Your task to perform on an android device: change notification settings in the gmail app Image 0: 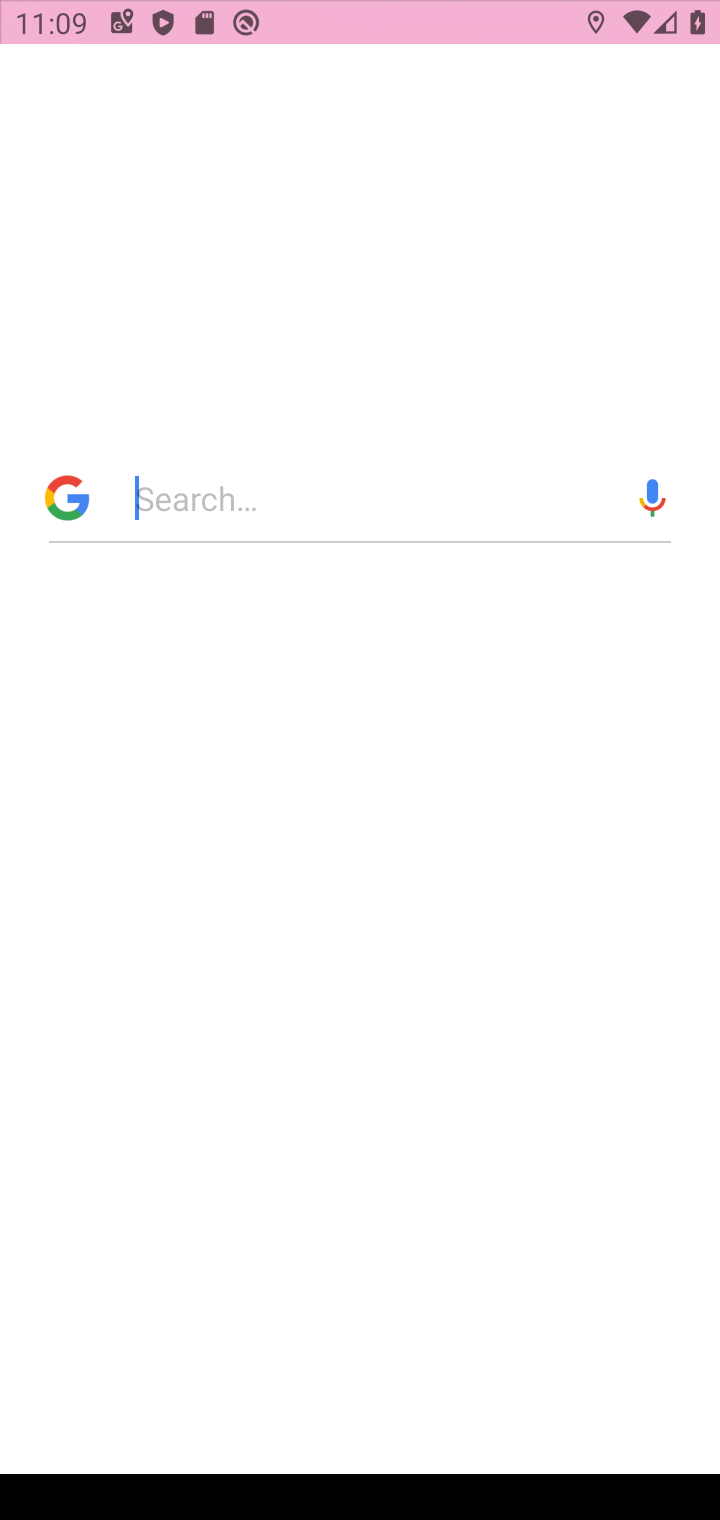
Step 0: press home button
Your task to perform on an android device: change notification settings in the gmail app Image 1: 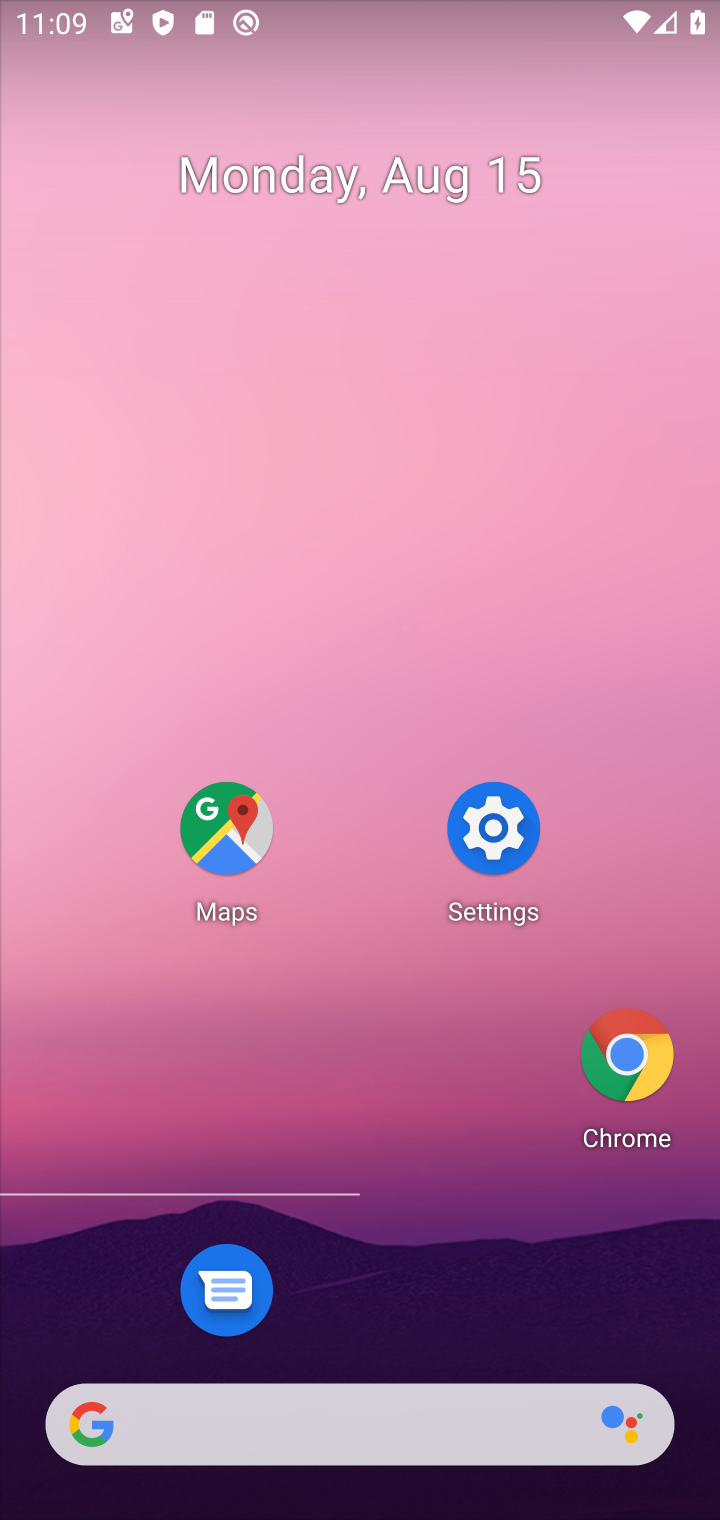
Step 1: drag from (370, 1289) to (493, 245)
Your task to perform on an android device: change notification settings in the gmail app Image 2: 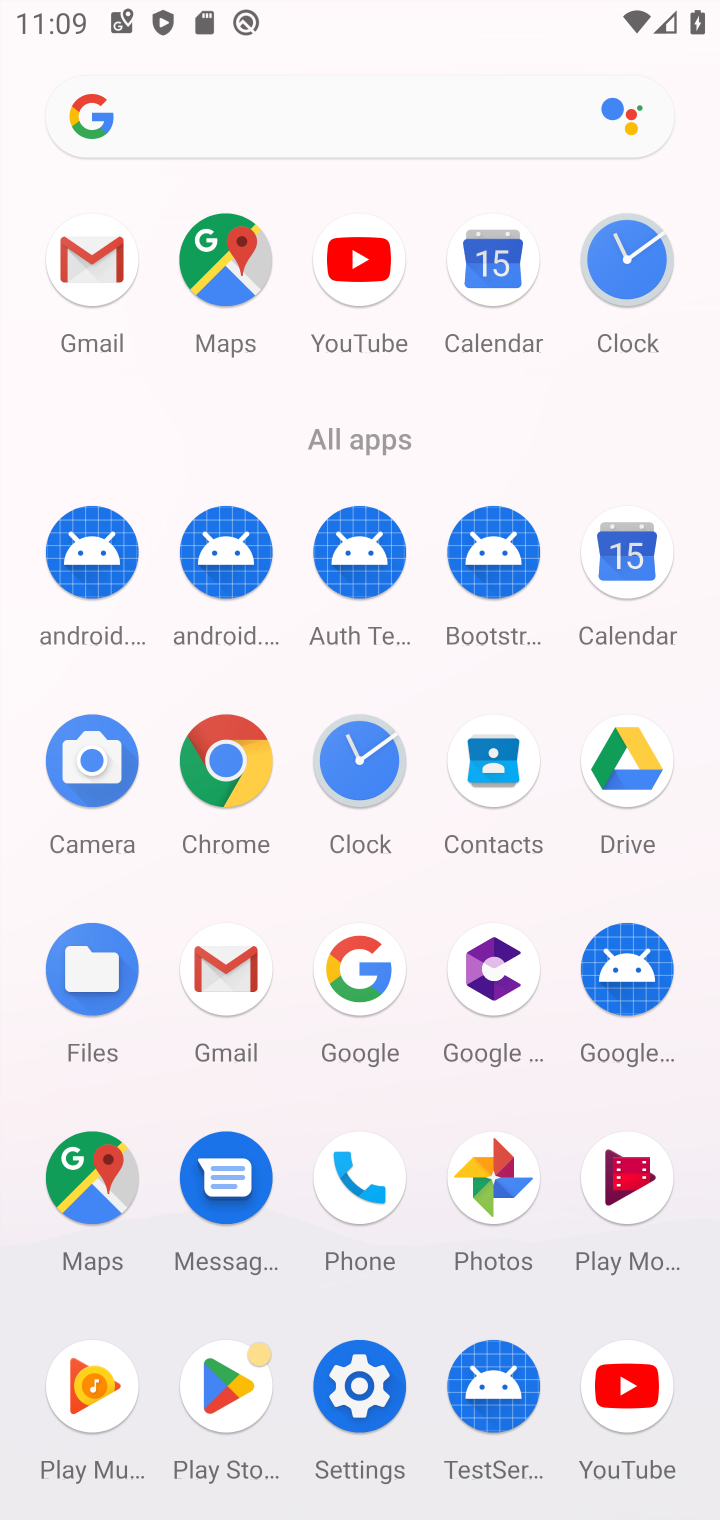
Step 2: click (94, 278)
Your task to perform on an android device: change notification settings in the gmail app Image 3: 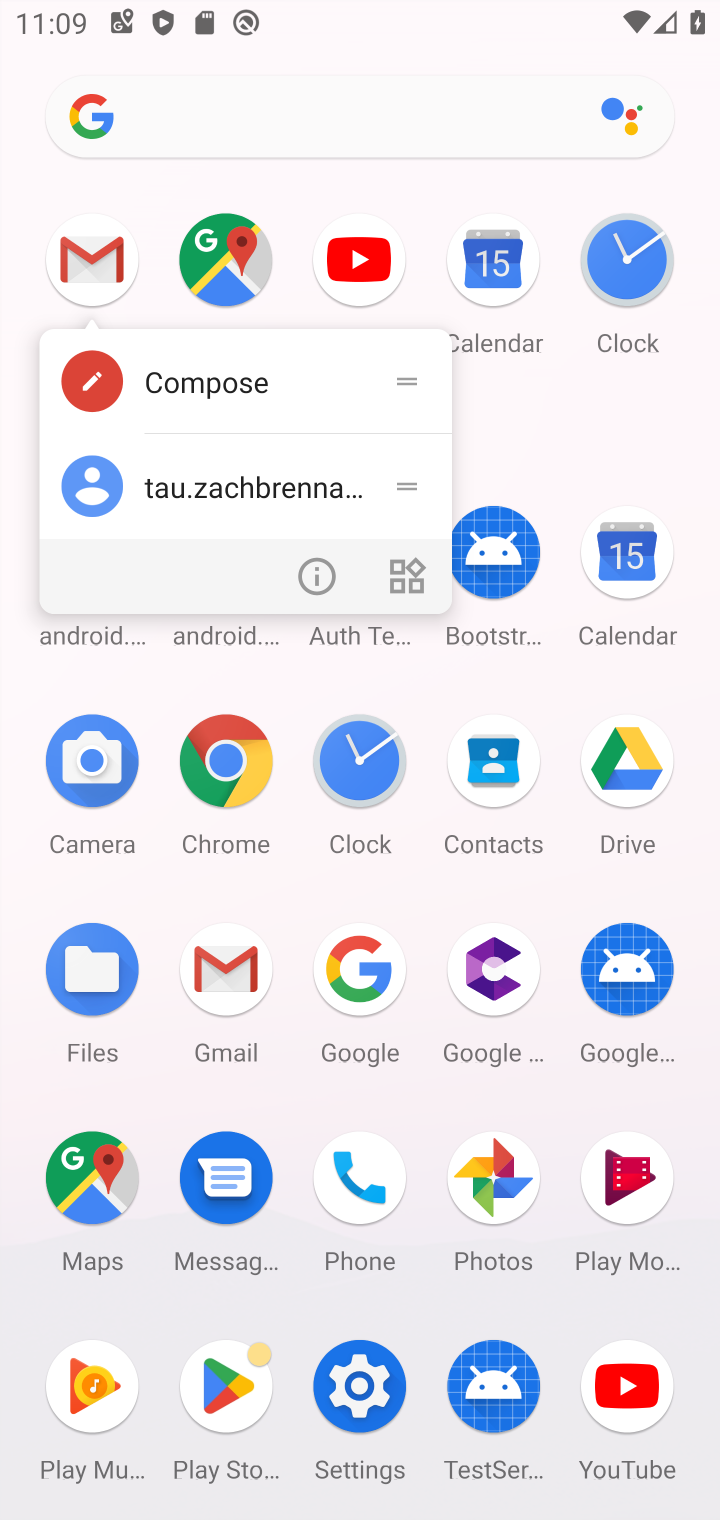
Step 3: click (75, 249)
Your task to perform on an android device: change notification settings in the gmail app Image 4: 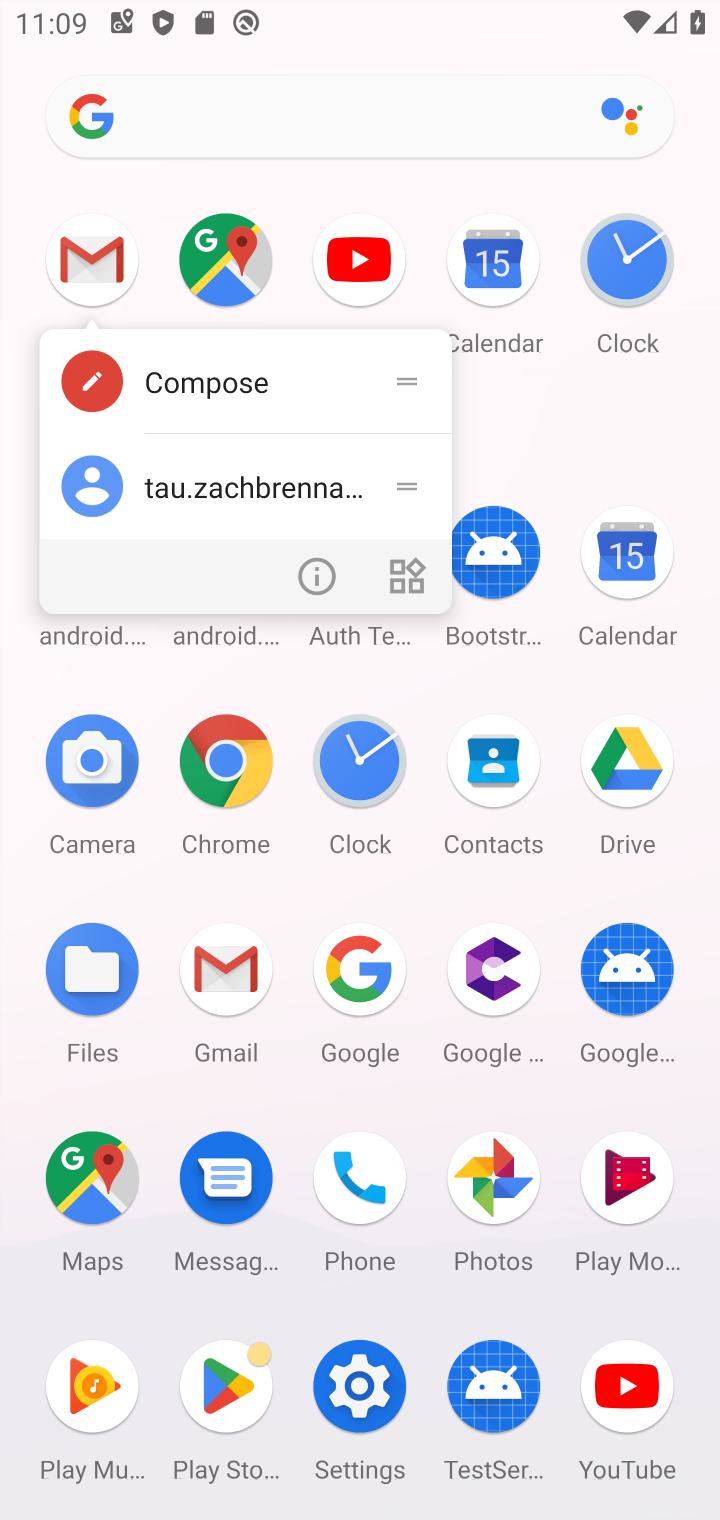
Step 4: click (91, 266)
Your task to perform on an android device: change notification settings in the gmail app Image 5: 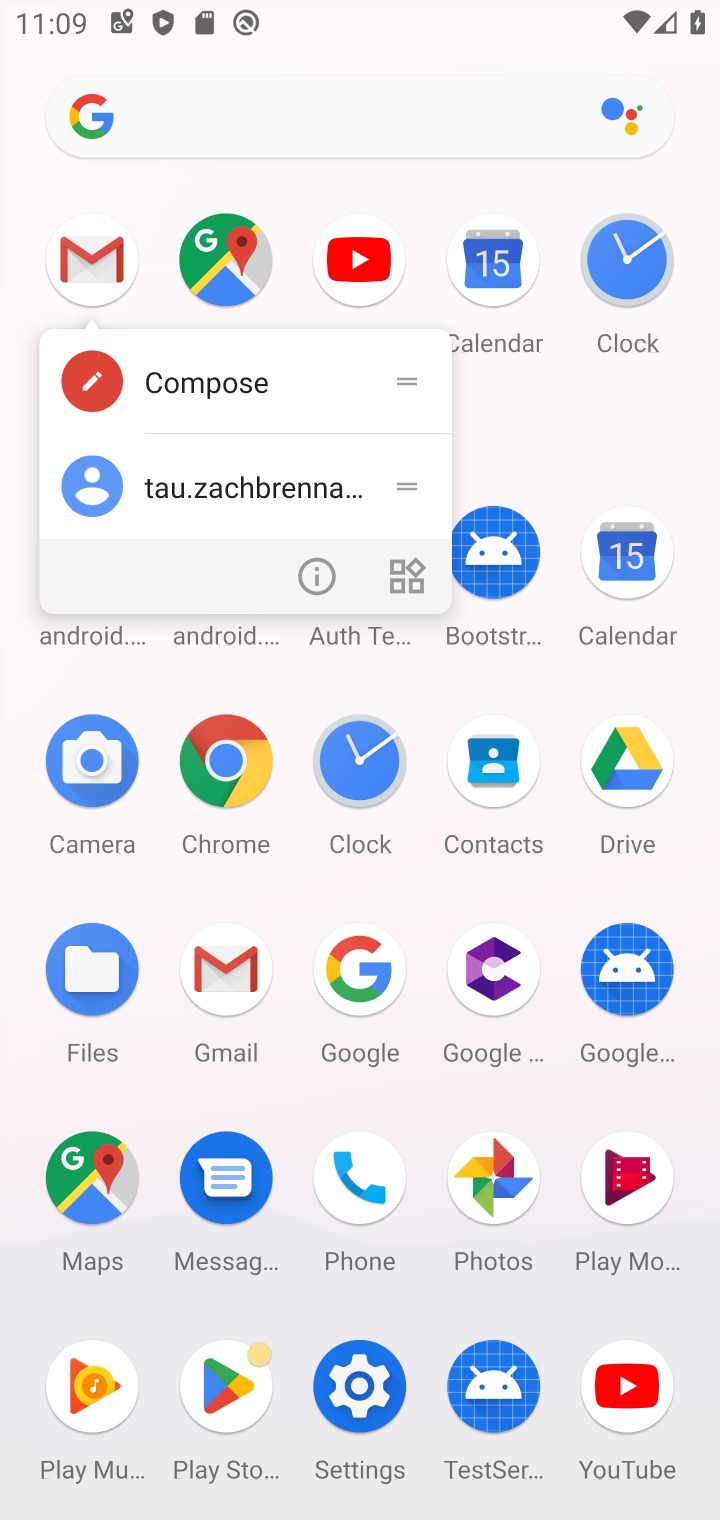
Step 5: click (91, 269)
Your task to perform on an android device: change notification settings in the gmail app Image 6: 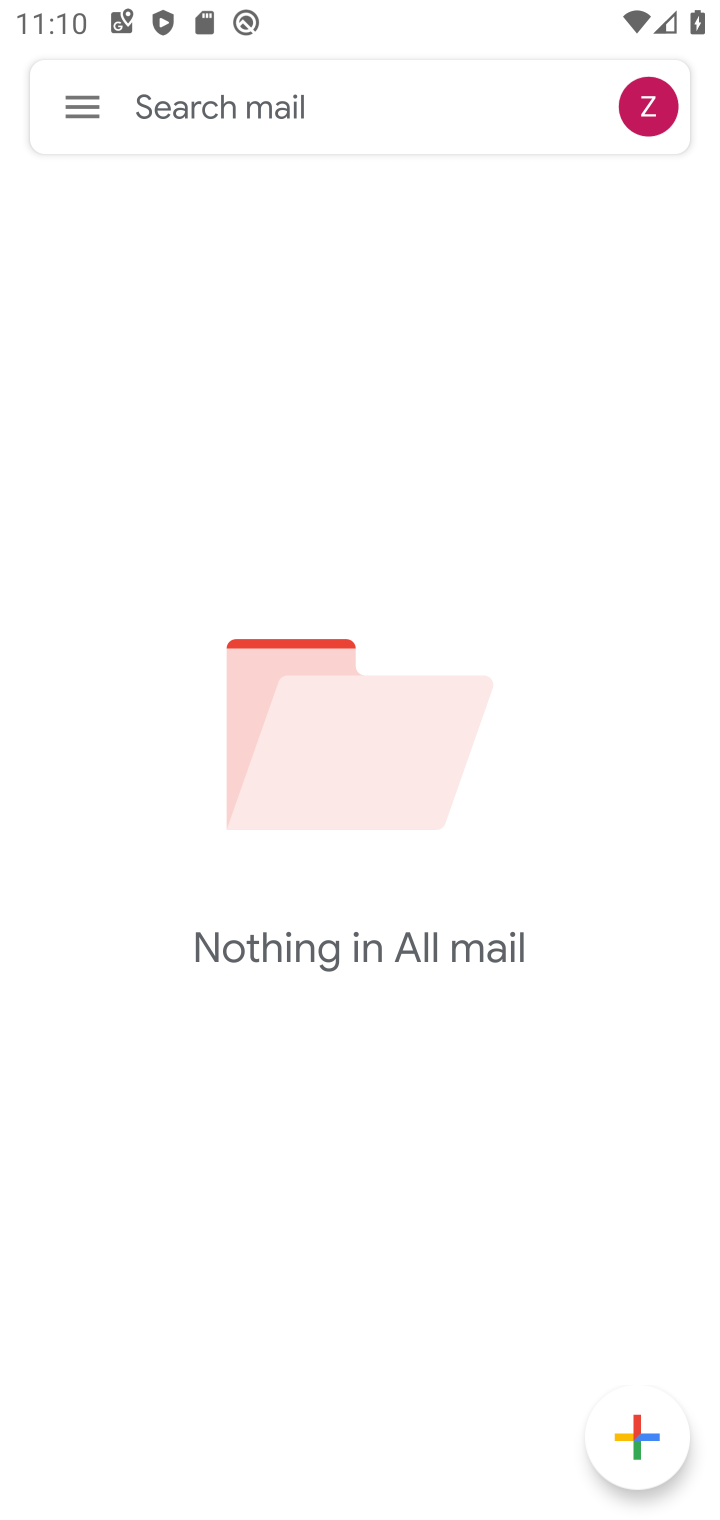
Step 6: click (67, 91)
Your task to perform on an android device: change notification settings in the gmail app Image 7: 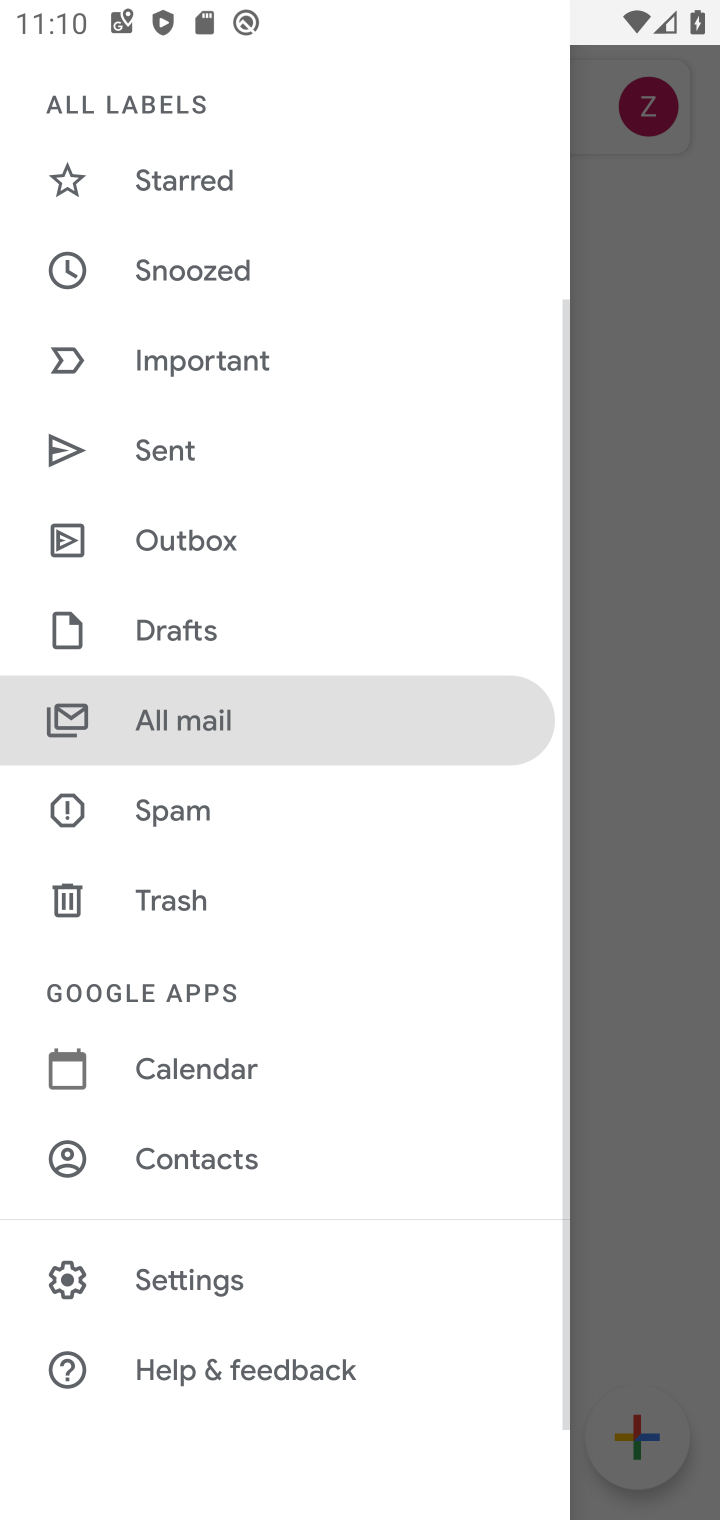
Step 7: click (239, 1275)
Your task to perform on an android device: change notification settings in the gmail app Image 8: 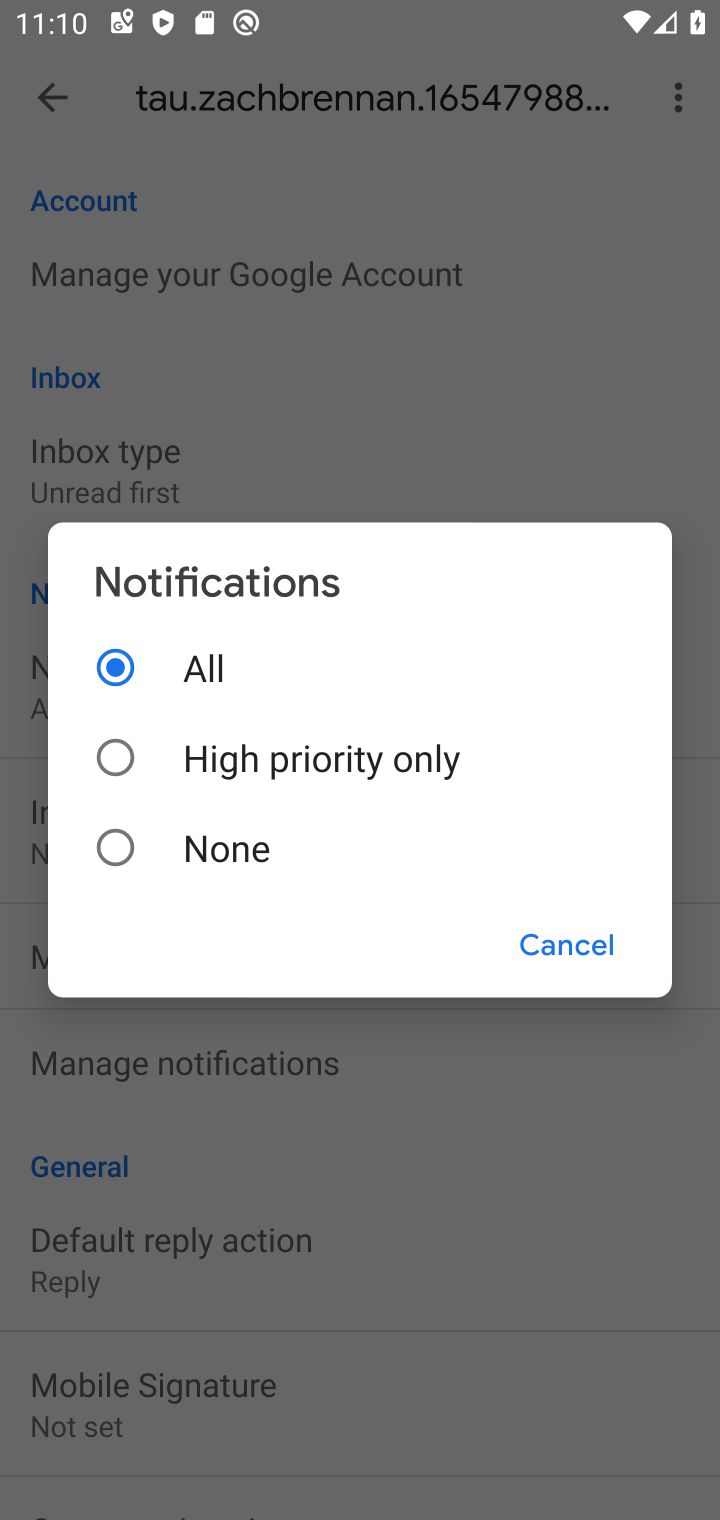
Step 8: click (115, 848)
Your task to perform on an android device: change notification settings in the gmail app Image 9: 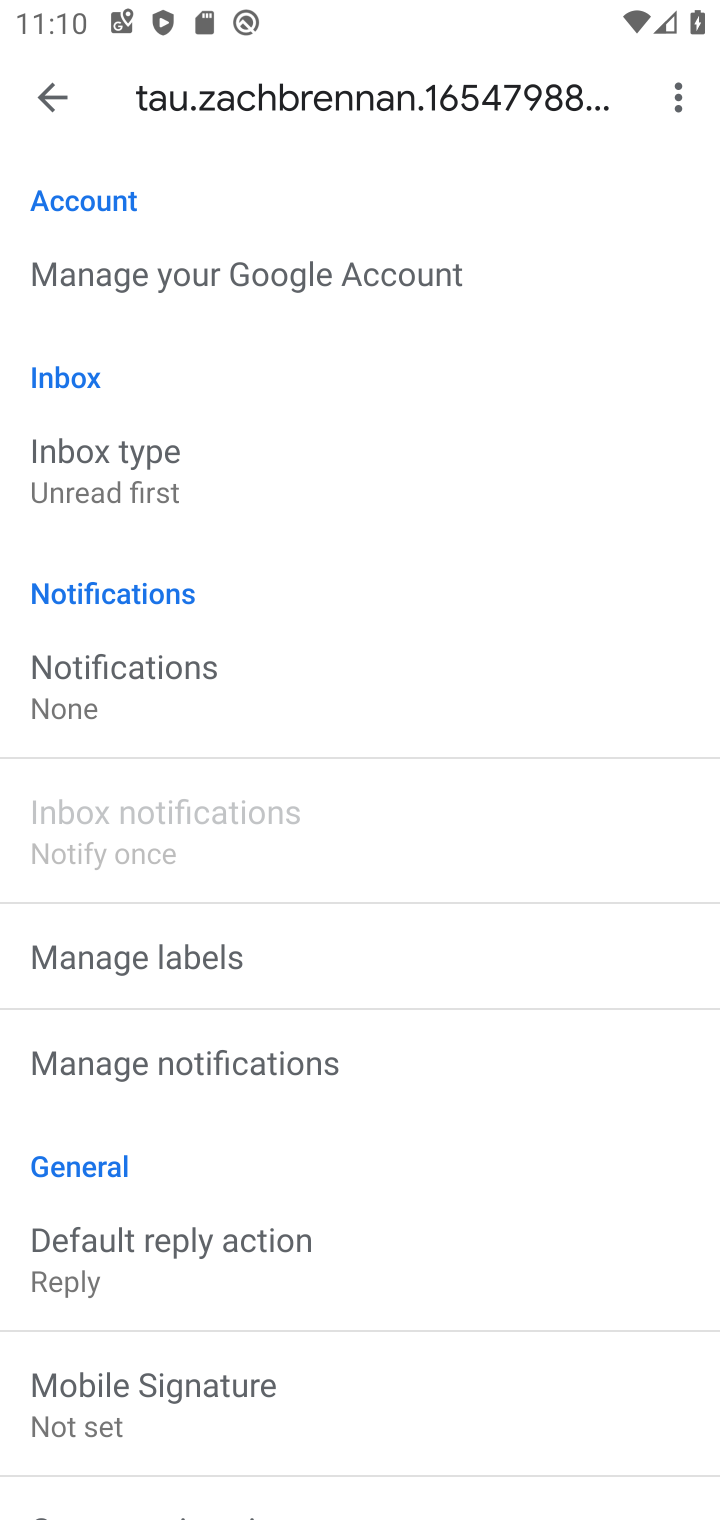
Step 9: task complete